Your task to perform on an android device: turn notification dots off Image 0: 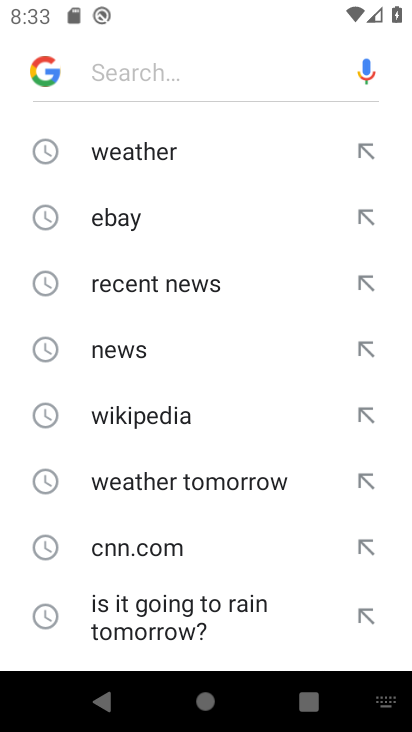
Step 0: press home button
Your task to perform on an android device: turn notification dots off Image 1: 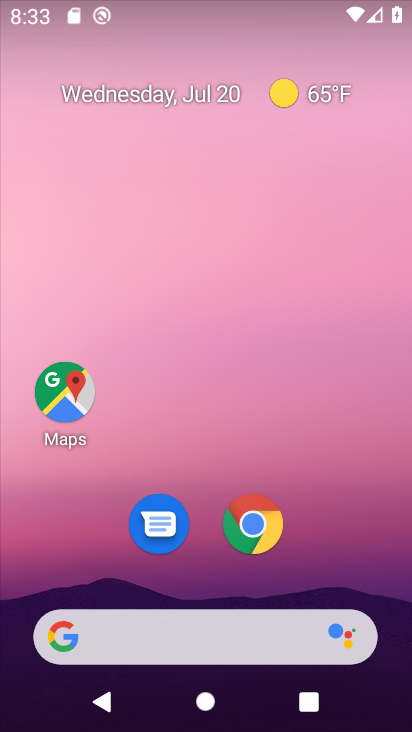
Step 1: drag from (344, 528) to (344, 61)
Your task to perform on an android device: turn notification dots off Image 2: 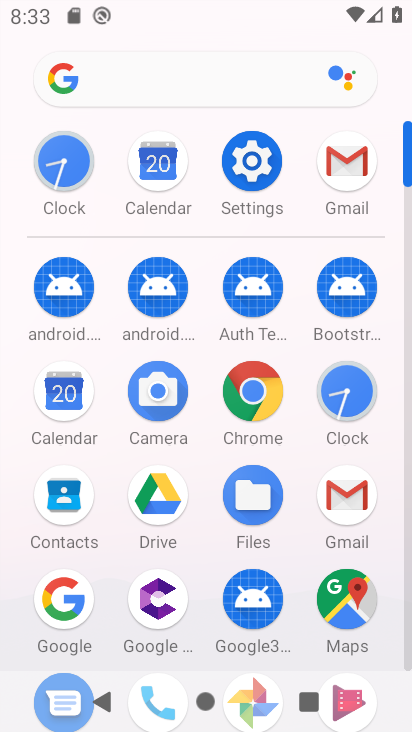
Step 2: click (257, 170)
Your task to perform on an android device: turn notification dots off Image 3: 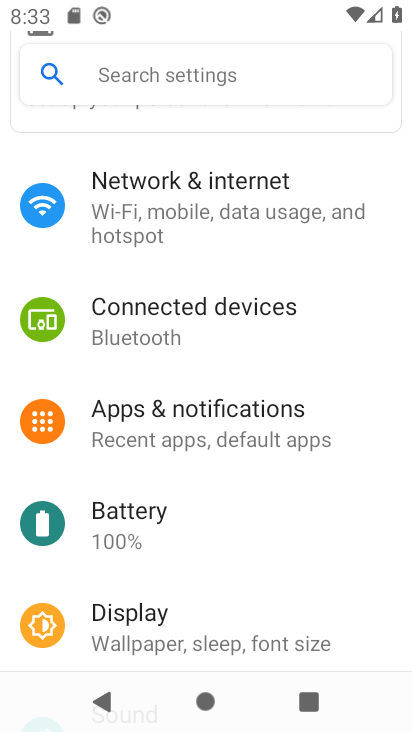
Step 3: click (174, 413)
Your task to perform on an android device: turn notification dots off Image 4: 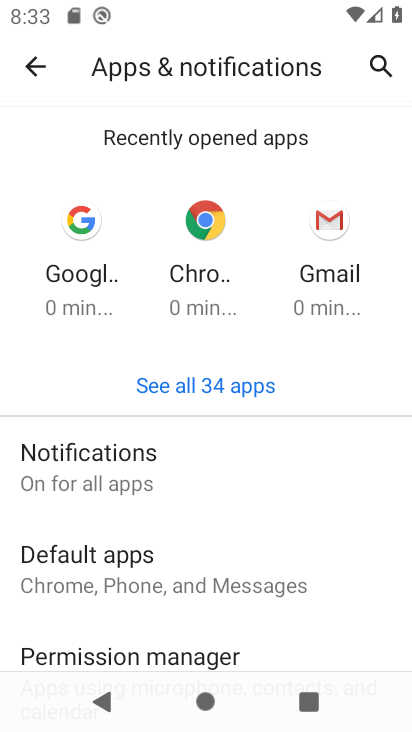
Step 4: click (125, 456)
Your task to perform on an android device: turn notification dots off Image 5: 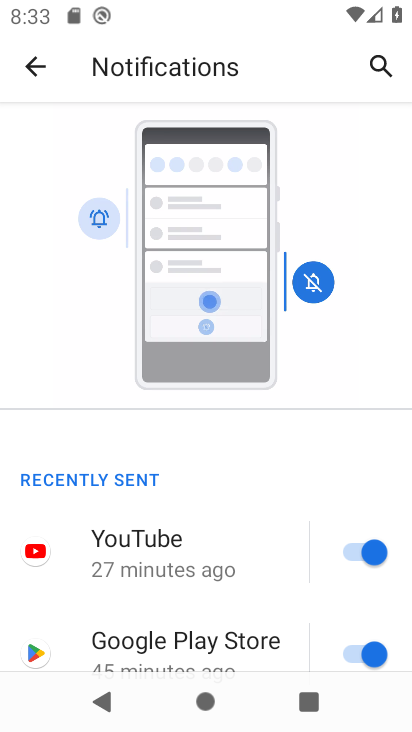
Step 5: drag from (243, 585) to (281, 51)
Your task to perform on an android device: turn notification dots off Image 6: 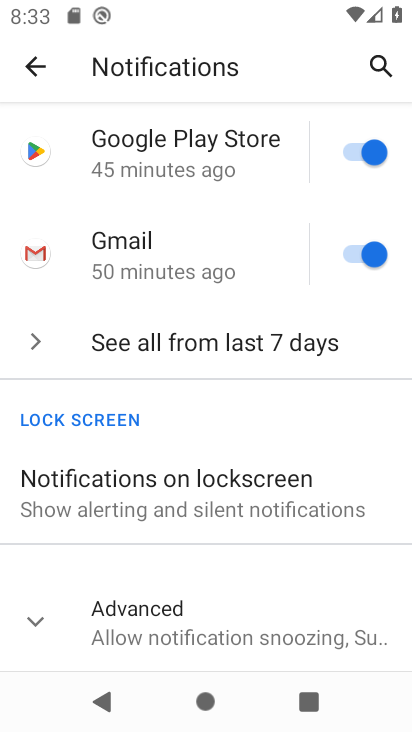
Step 6: click (32, 608)
Your task to perform on an android device: turn notification dots off Image 7: 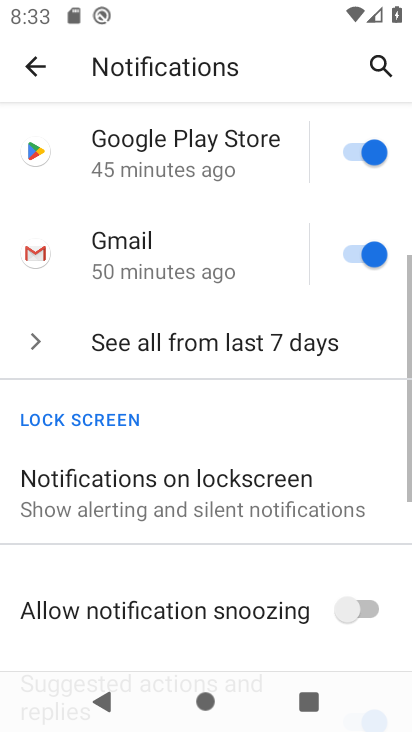
Step 7: drag from (199, 557) to (267, 141)
Your task to perform on an android device: turn notification dots off Image 8: 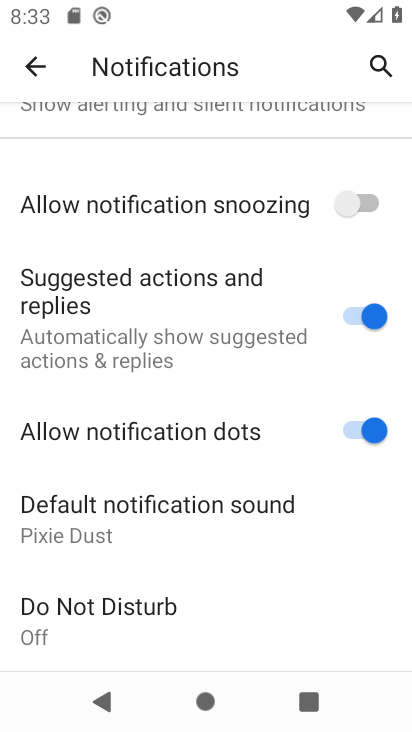
Step 8: click (357, 420)
Your task to perform on an android device: turn notification dots off Image 9: 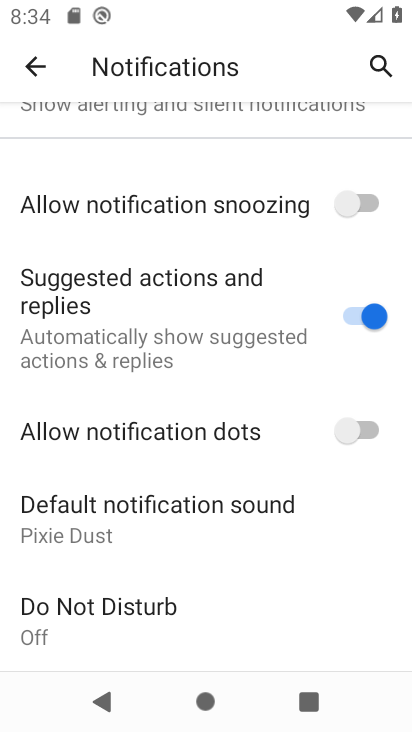
Step 9: task complete